Your task to perform on an android device: turn vacation reply on in the gmail app Image 0: 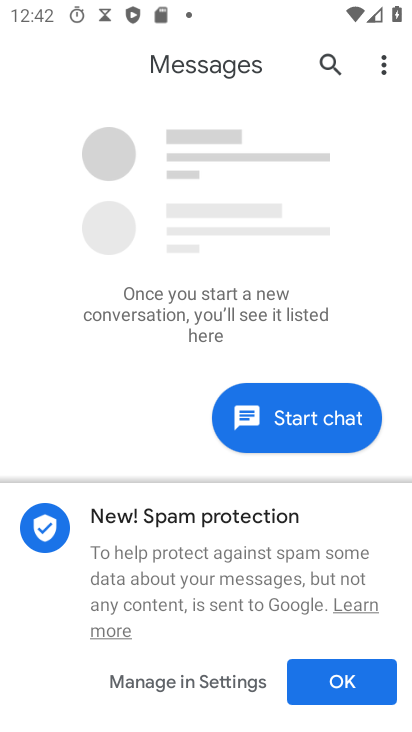
Step 0: press back button
Your task to perform on an android device: turn vacation reply on in the gmail app Image 1: 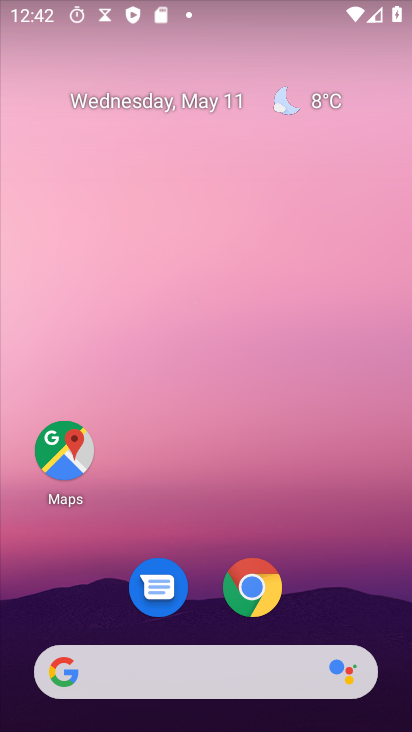
Step 1: drag from (370, 687) to (65, 46)
Your task to perform on an android device: turn vacation reply on in the gmail app Image 2: 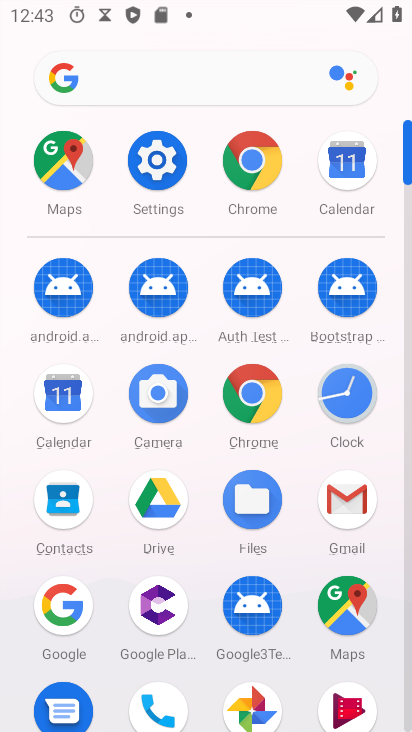
Step 2: click (357, 493)
Your task to perform on an android device: turn vacation reply on in the gmail app Image 3: 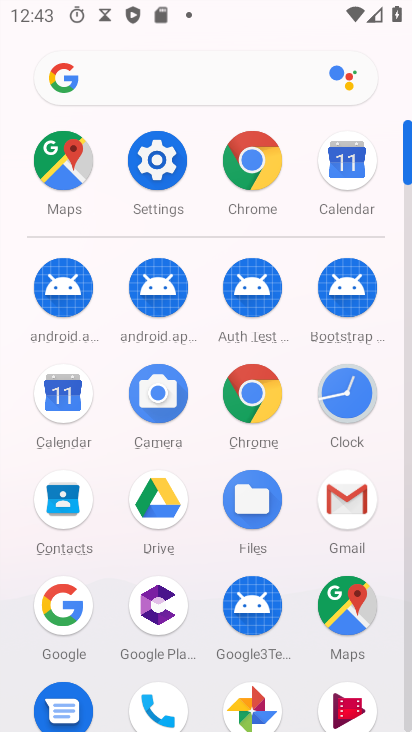
Step 3: click (358, 500)
Your task to perform on an android device: turn vacation reply on in the gmail app Image 4: 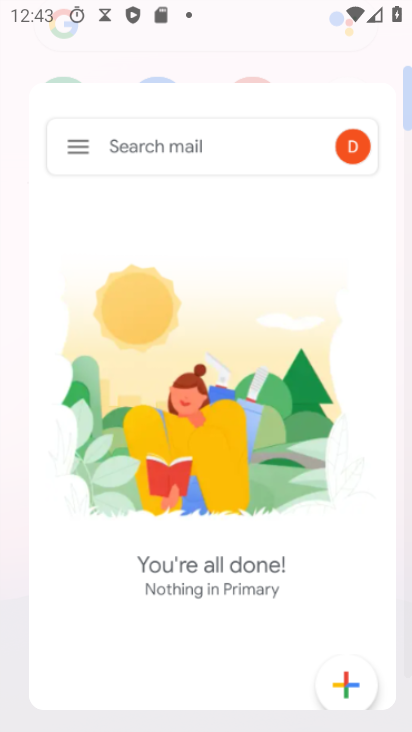
Step 4: click (358, 503)
Your task to perform on an android device: turn vacation reply on in the gmail app Image 5: 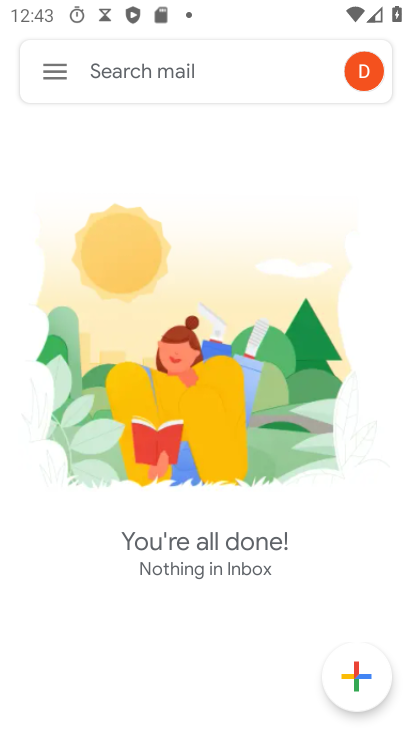
Step 5: click (48, 67)
Your task to perform on an android device: turn vacation reply on in the gmail app Image 6: 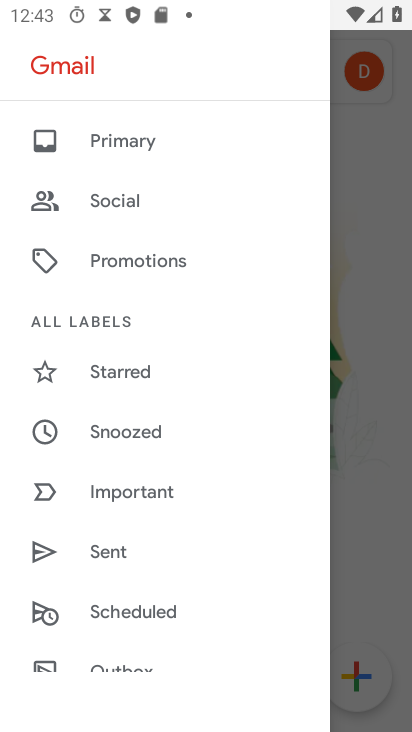
Step 6: drag from (188, 491) to (76, 0)
Your task to perform on an android device: turn vacation reply on in the gmail app Image 7: 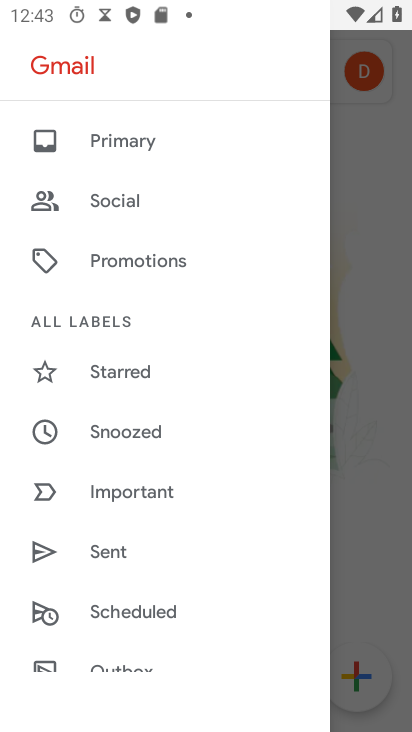
Step 7: drag from (208, 490) to (182, 71)
Your task to perform on an android device: turn vacation reply on in the gmail app Image 8: 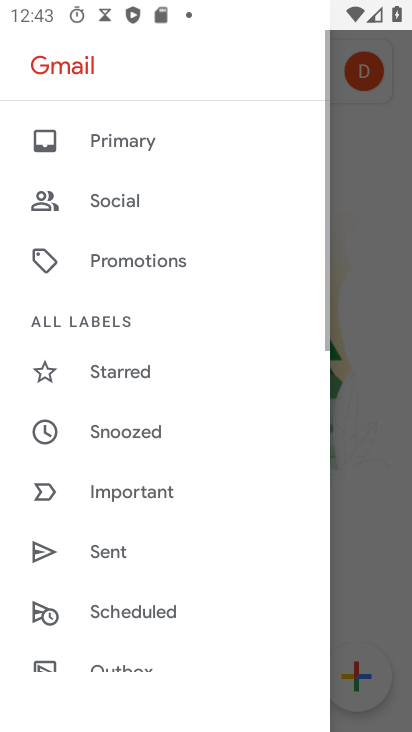
Step 8: drag from (186, 541) to (202, 133)
Your task to perform on an android device: turn vacation reply on in the gmail app Image 9: 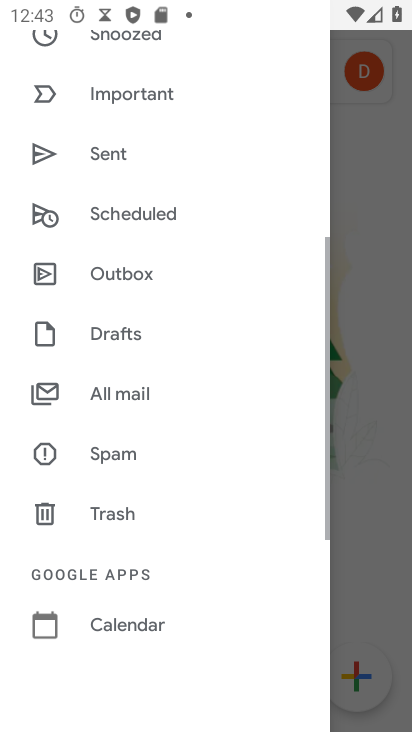
Step 9: drag from (130, 572) to (149, 163)
Your task to perform on an android device: turn vacation reply on in the gmail app Image 10: 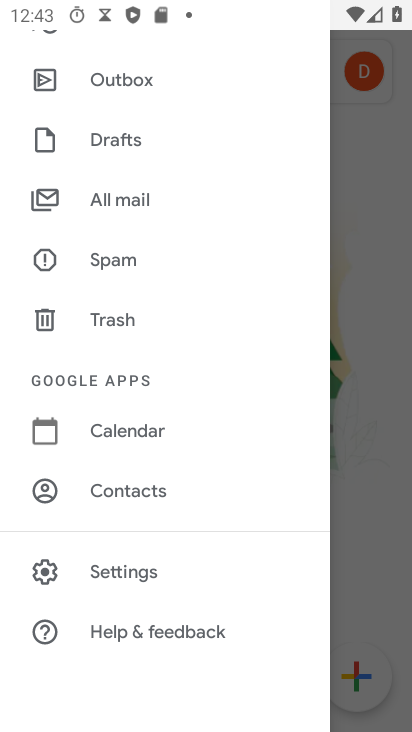
Step 10: click (119, 566)
Your task to perform on an android device: turn vacation reply on in the gmail app Image 11: 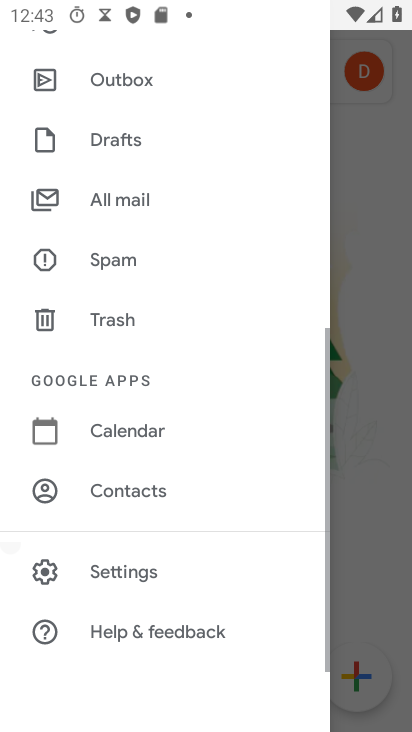
Step 11: click (119, 566)
Your task to perform on an android device: turn vacation reply on in the gmail app Image 12: 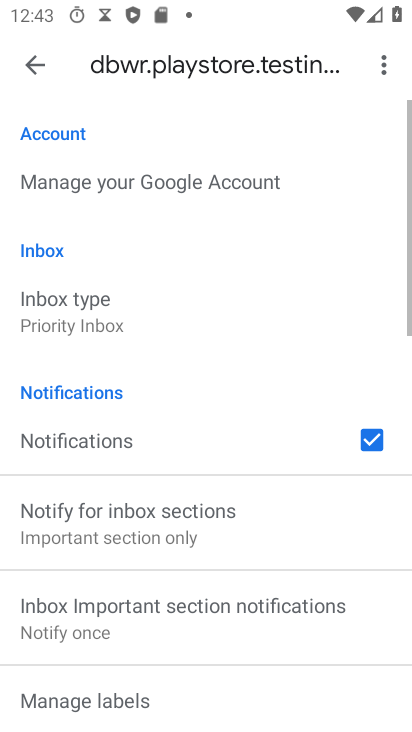
Step 12: drag from (178, 580) to (88, 234)
Your task to perform on an android device: turn vacation reply on in the gmail app Image 13: 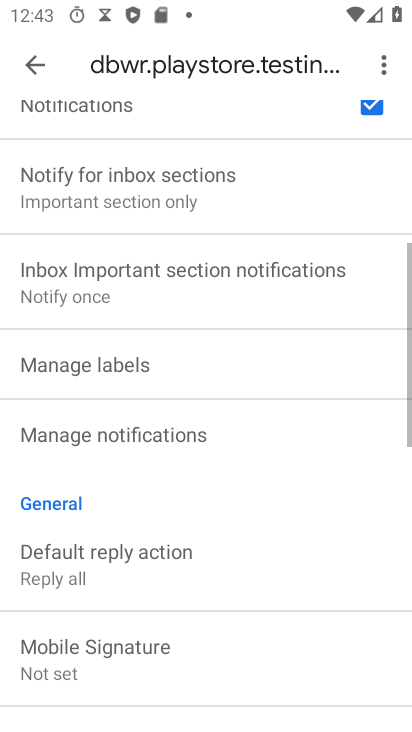
Step 13: drag from (127, 466) to (145, 288)
Your task to perform on an android device: turn vacation reply on in the gmail app Image 14: 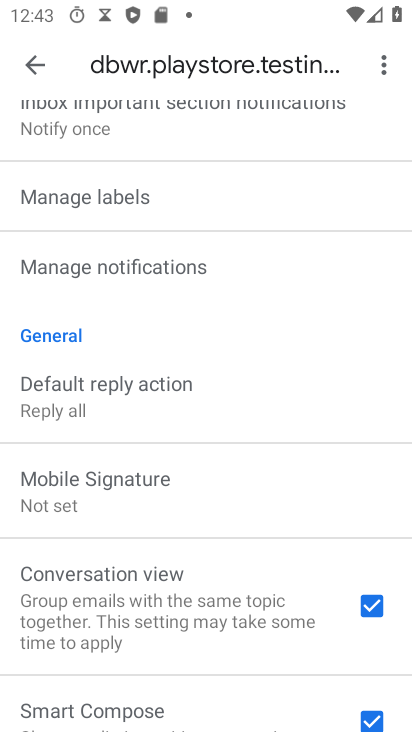
Step 14: drag from (146, 599) to (156, 242)
Your task to perform on an android device: turn vacation reply on in the gmail app Image 15: 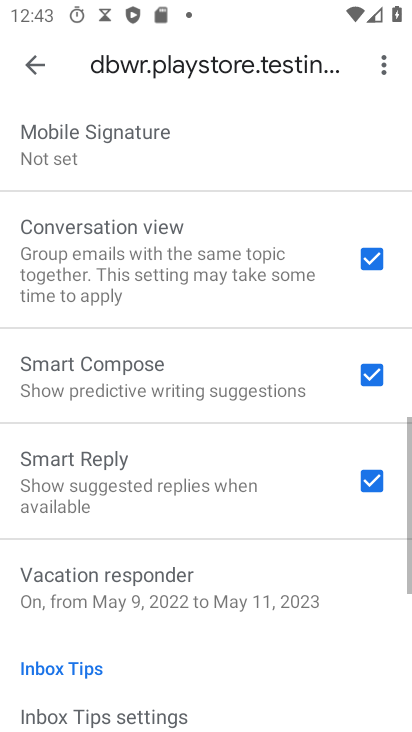
Step 15: drag from (204, 535) to (190, 228)
Your task to perform on an android device: turn vacation reply on in the gmail app Image 16: 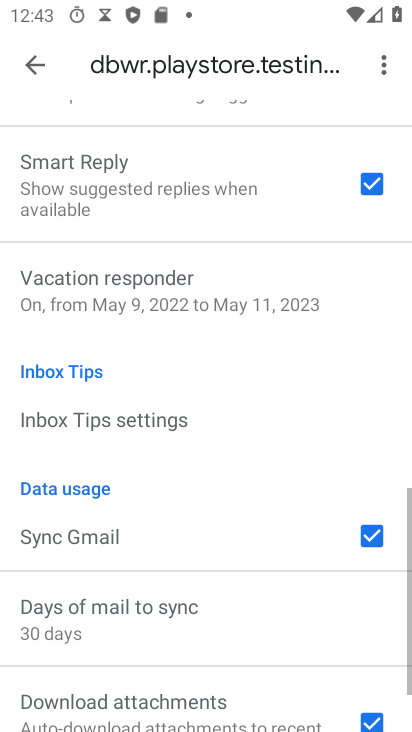
Step 16: drag from (211, 478) to (200, 104)
Your task to perform on an android device: turn vacation reply on in the gmail app Image 17: 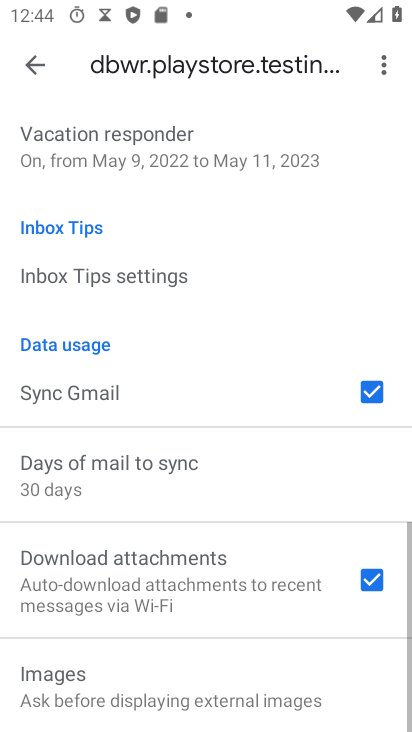
Step 17: drag from (216, 506) to (213, 266)
Your task to perform on an android device: turn vacation reply on in the gmail app Image 18: 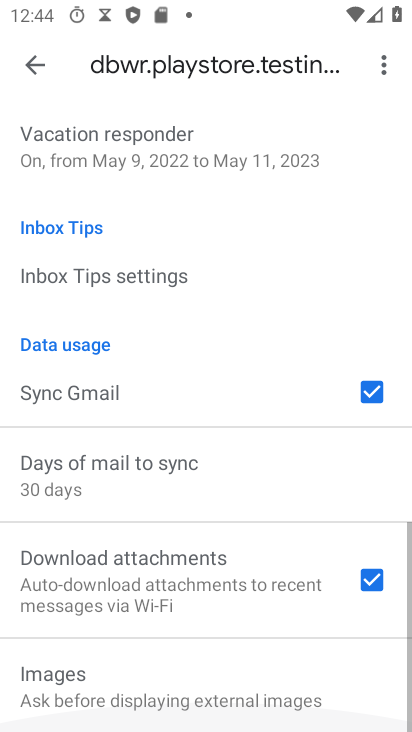
Step 18: drag from (294, 627) to (278, 229)
Your task to perform on an android device: turn vacation reply on in the gmail app Image 19: 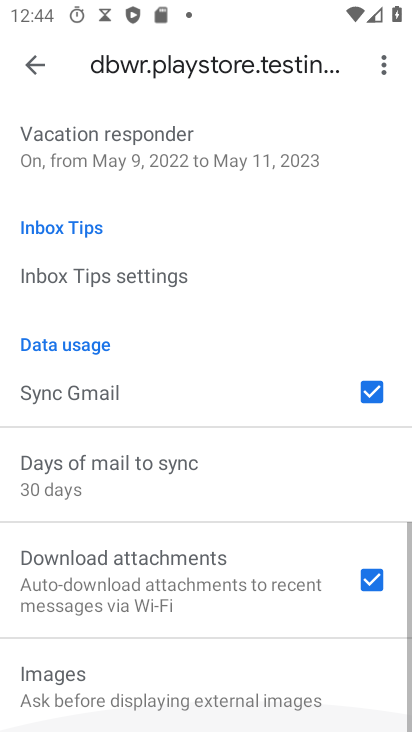
Step 19: drag from (207, 641) to (121, 265)
Your task to perform on an android device: turn vacation reply on in the gmail app Image 20: 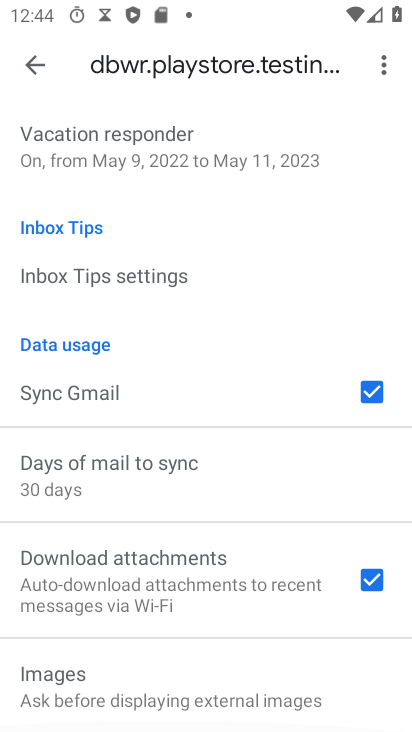
Step 20: drag from (220, 513) to (142, 189)
Your task to perform on an android device: turn vacation reply on in the gmail app Image 21: 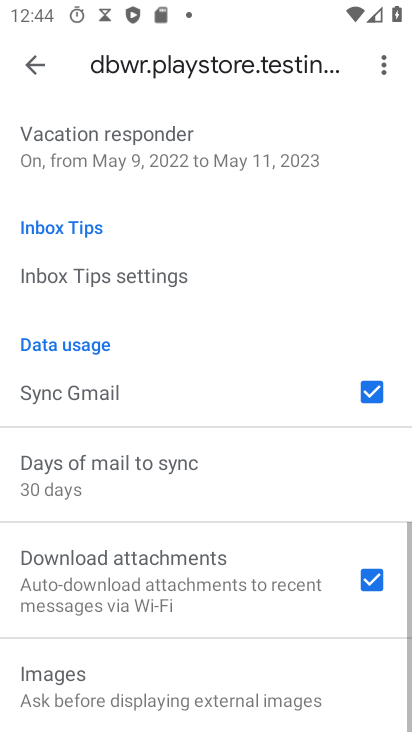
Step 21: drag from (157, 596) to (54, 186)
Your task to perform on an android device: turn vacation reply on in the gmail app Image 22: 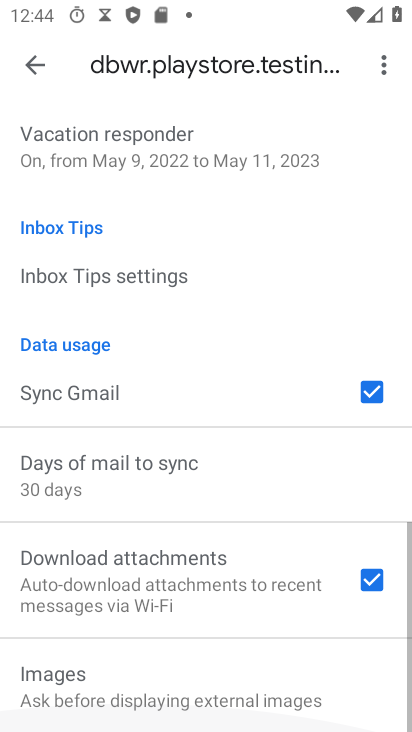
Step 22: drag from (190, 502) to (168, 153)
Your task to perform on an android device: turn vacation reply on in the gmail app Image 23: 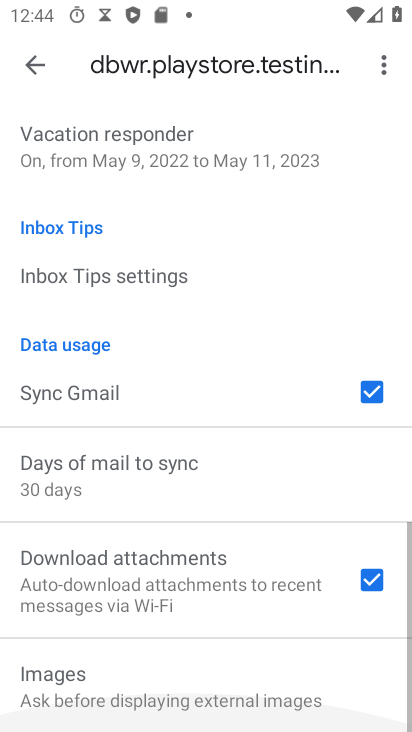
Step 23: drag from (244, 498) to (229, 164)
Your task to perform on an android device: turn vacation reply on in the gmail app Image 24: 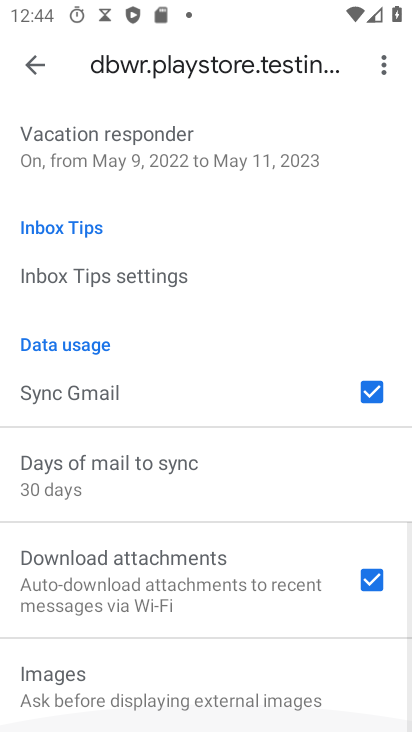
Step 24: drag from (250, 534) to (267, 151)
Your task to perform on an android device: turn vacation reply on in the gmail app Image 25: 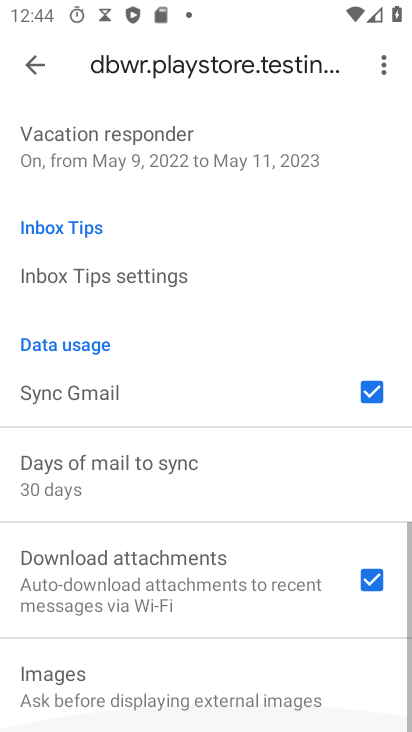
Step 25: drag from (303, 567) to (321, 165)
Your task to perform on an android device: turn vacation reply on in the gmail app Image 26: 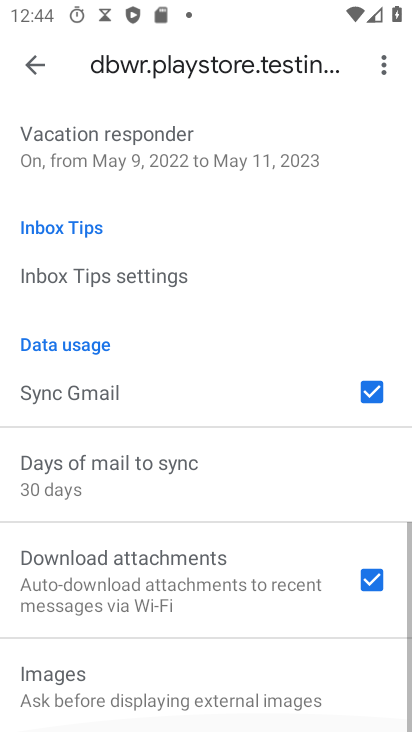
Step 26: drag from (199, 666) to (193, 343)
Your task to perform on an android device: turn vacation reply on in the gmail app Image 27: 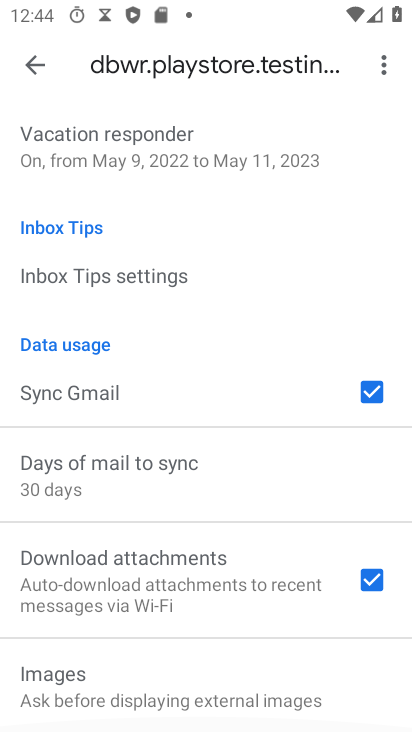
Step 27: drag from (228, 584) to (177, 404)
Your task to perform on an android device: turn vacation reply on in the gmail app Image 28: 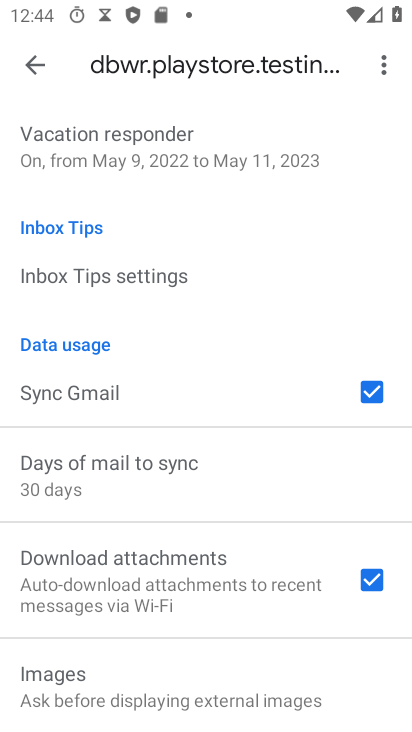
Step 28: drag from (215, 638) to (226, 293)
Your task to perform on an android device: turn vacation reply on in the gmail app Image 29: 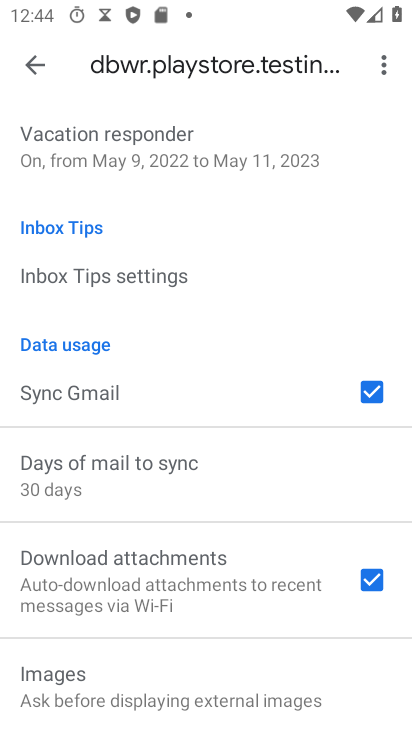
Step 29: click (110, 155)
Your task to perform on an android device: turn vacation reply on in the gmail app Image 30: 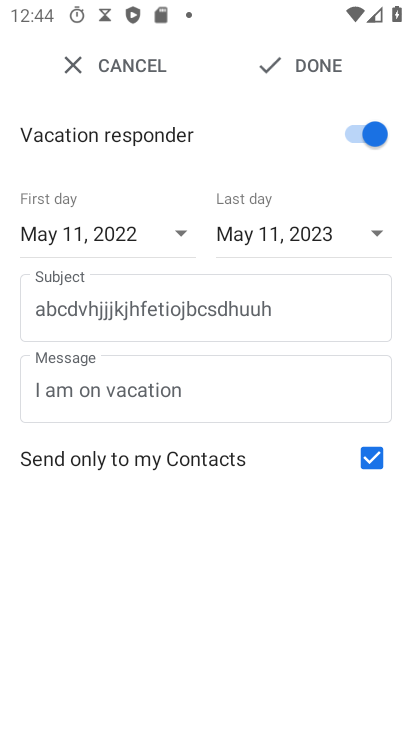
Step 30: task complete